Your task to perform on an android device: toggle show notifications on the lock screen Image 0: 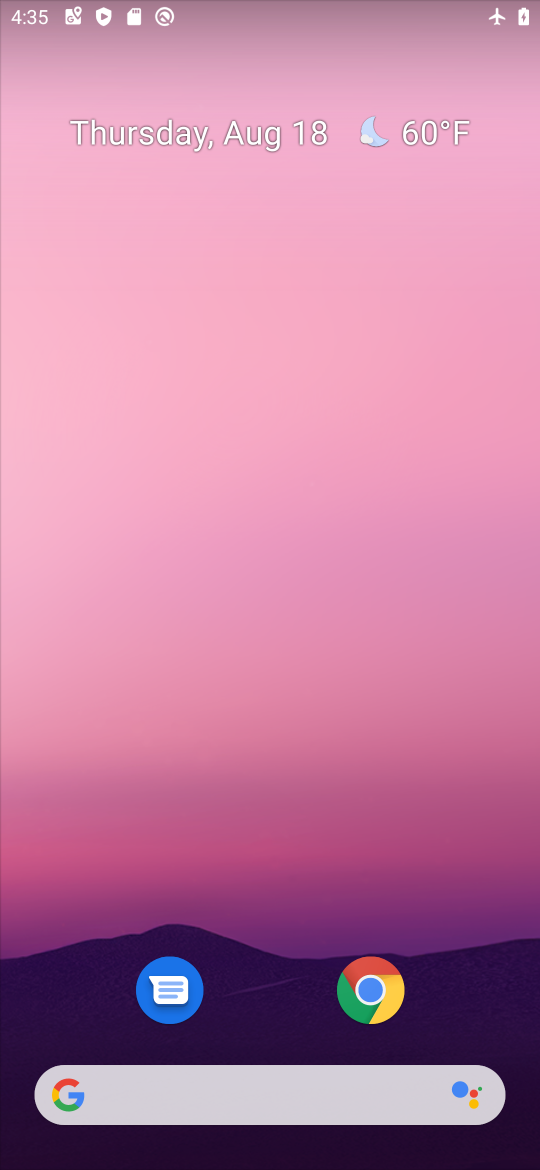
Step 0: drag from (272, 986) to (64, 8)
Your task to perform on an android device: toggle show notifications on the lock screen Image 1: 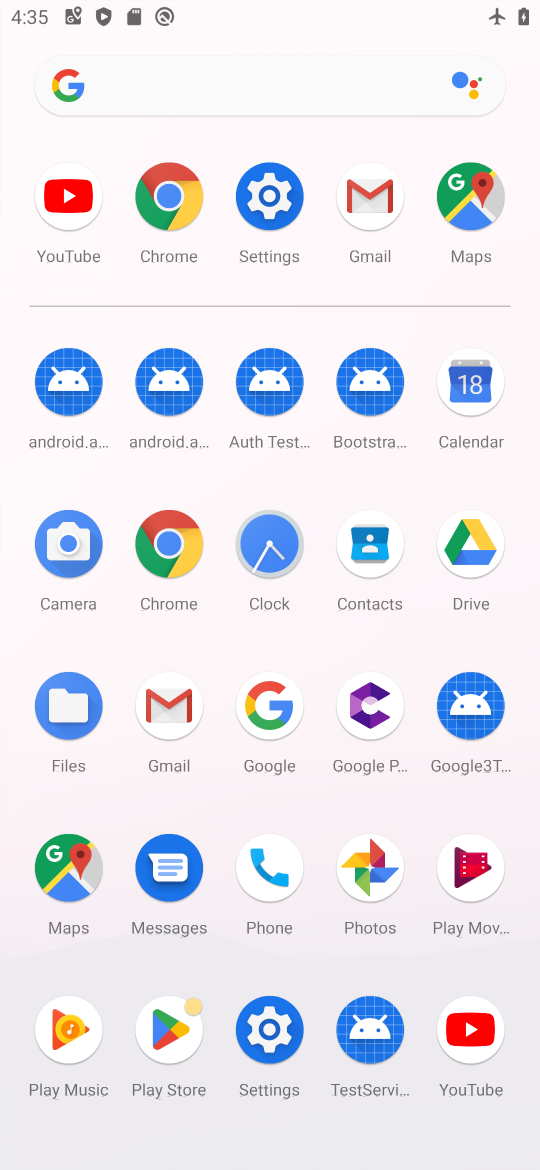
Step 1: click (258, 1034)
Your task to perform on an android device: toggle show notifications on the lock screen Image 2: 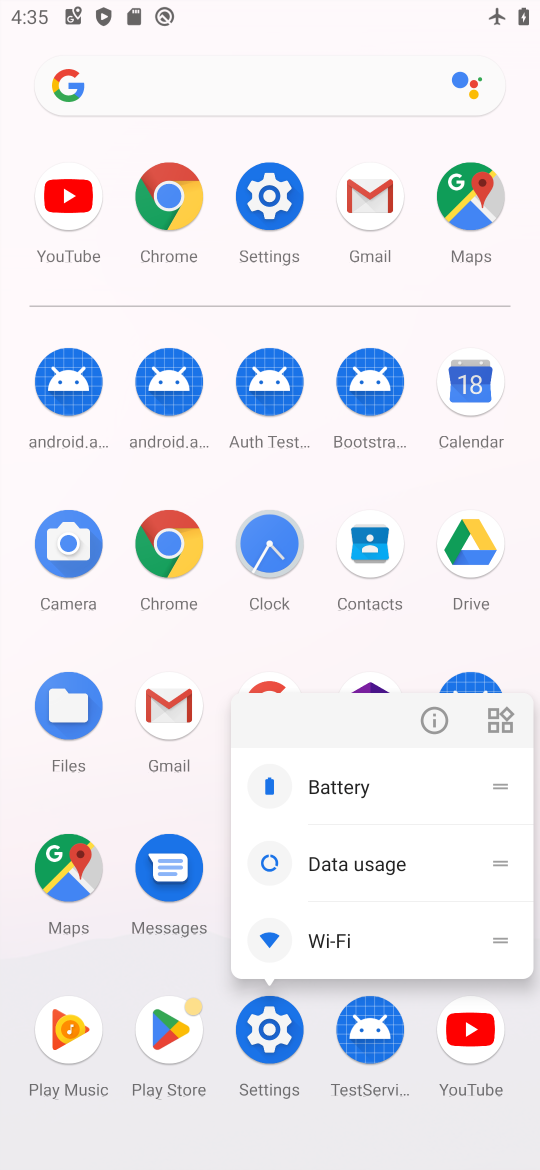
Step 2: click (273, 1029)
Your task to perform on an android device: toggle show notifications on the lock screen Image 3: 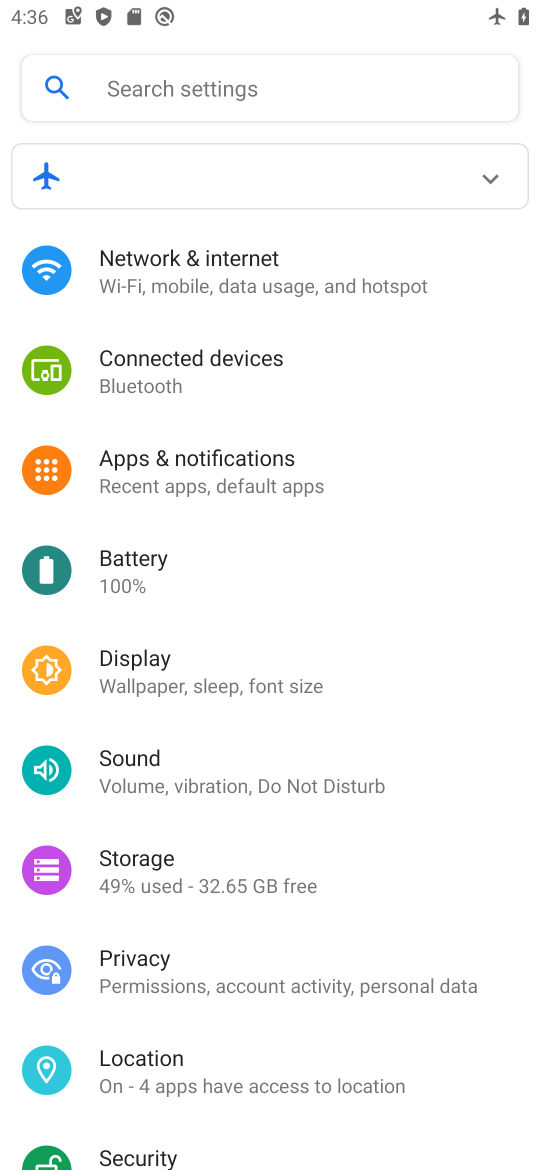
Step 3: click (229, 458)
Your task to perform on an android device: toggle show notifications on the lock screen Image 4: 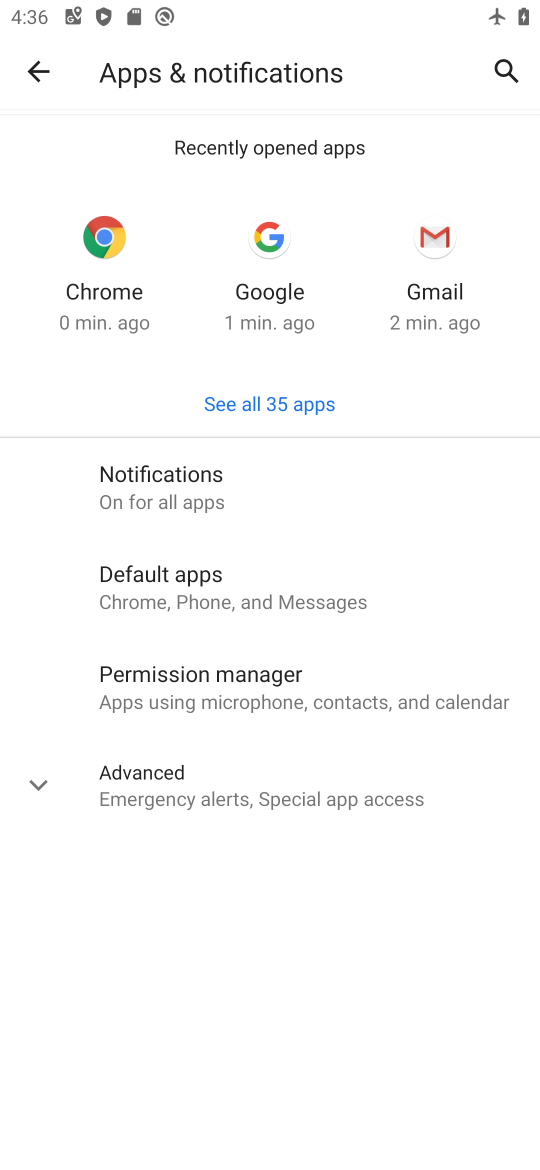
Step 4: click (222, 510)
Your task to perform on an android device: toggle show notifications on the lock screen Image 5: 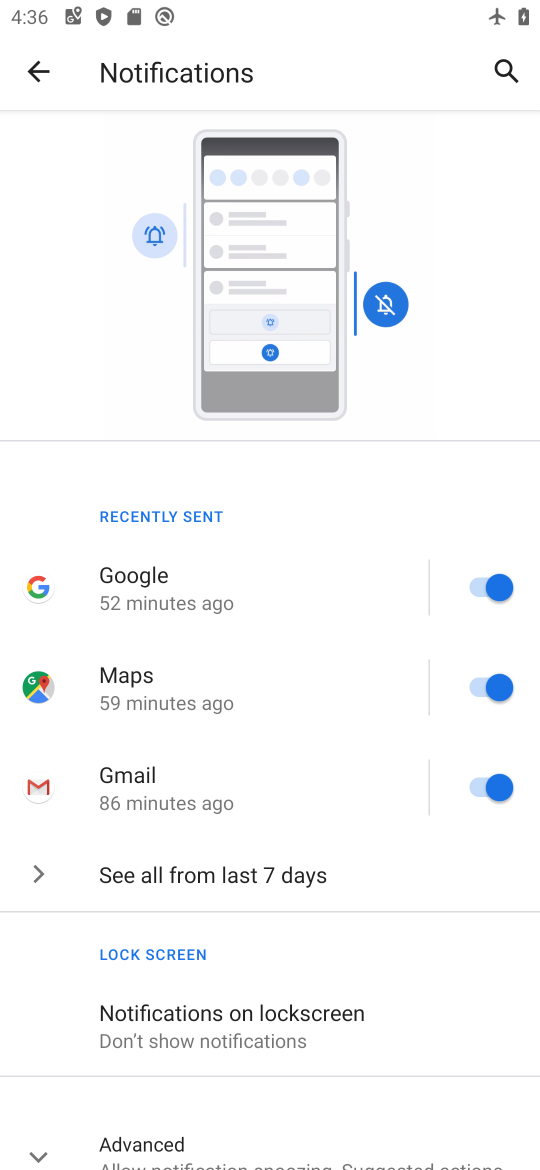
Step 5: click (201, 1047)
Your task to perform on an android device: toggle show notifications on the lock screen Image 6: 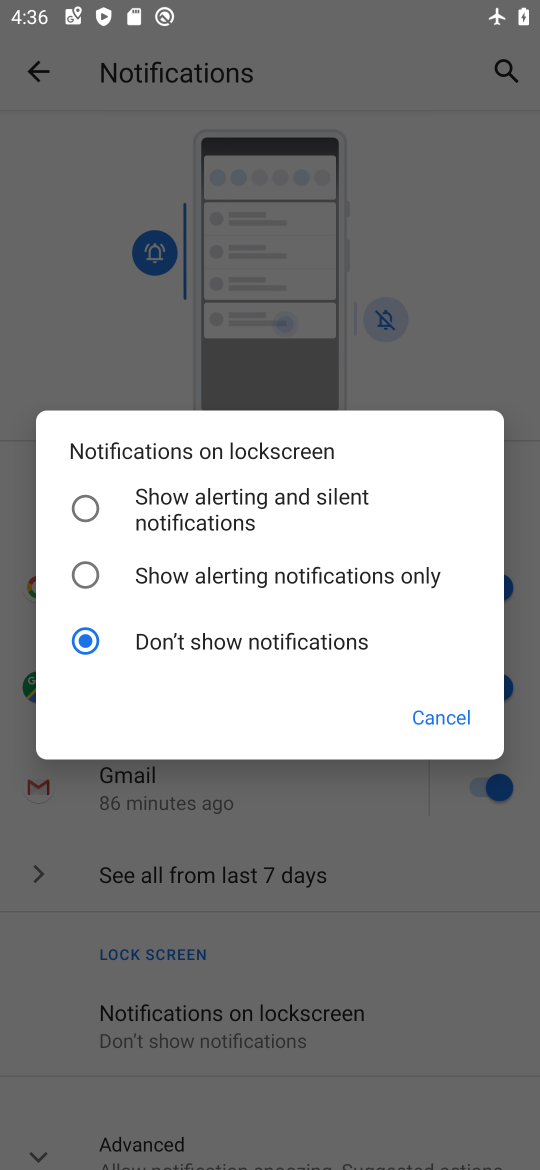
Step 6: click (264, 513)
Your task to perform on an android device: toggle show notifications on the lock screen Image 7: 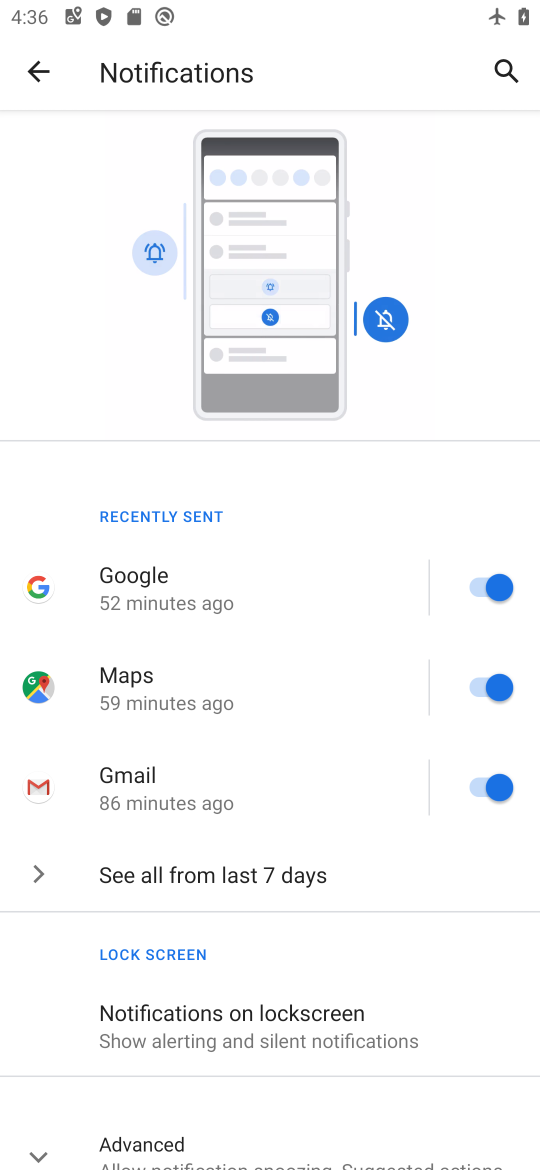
Step 7: task complete